Your task to perform on an android device: Search for seafood restaurants on Google Maps Image 0: 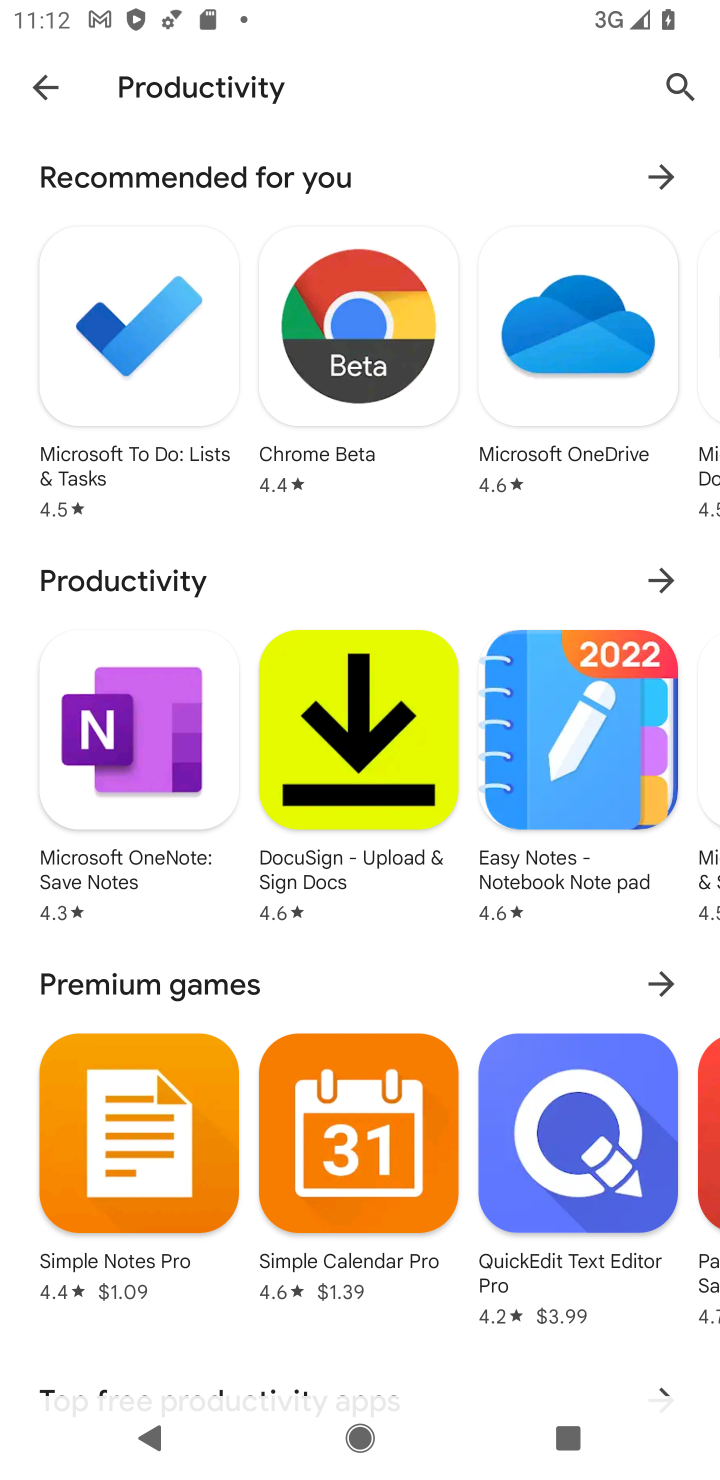
Step 0: press home button
Your task to perform on an android device: Search for seafood restaurants on Google Maps Image 1: 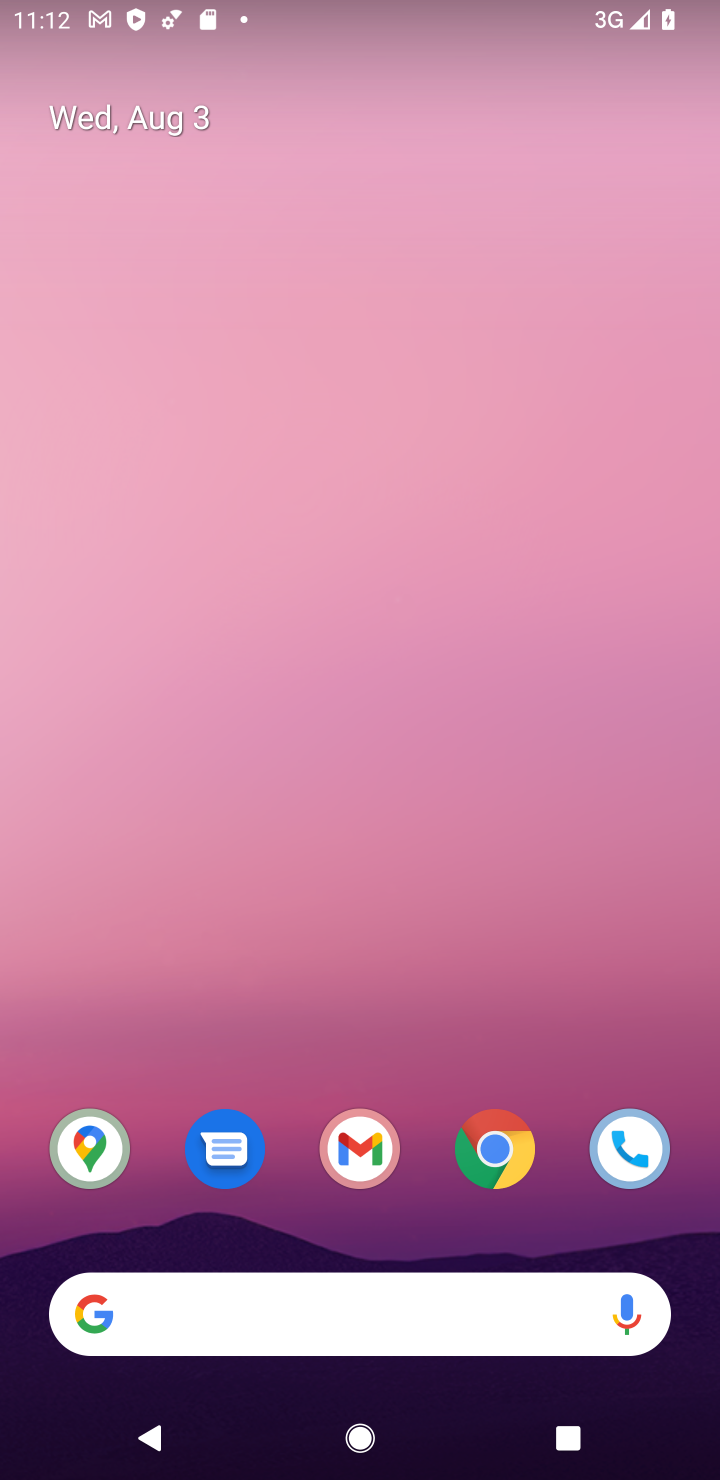
Step 1: drag from (501, 1025) to (489, 59)
Your task to perform on an android device: Search for seafood restaurants on Google Maps Image 2: 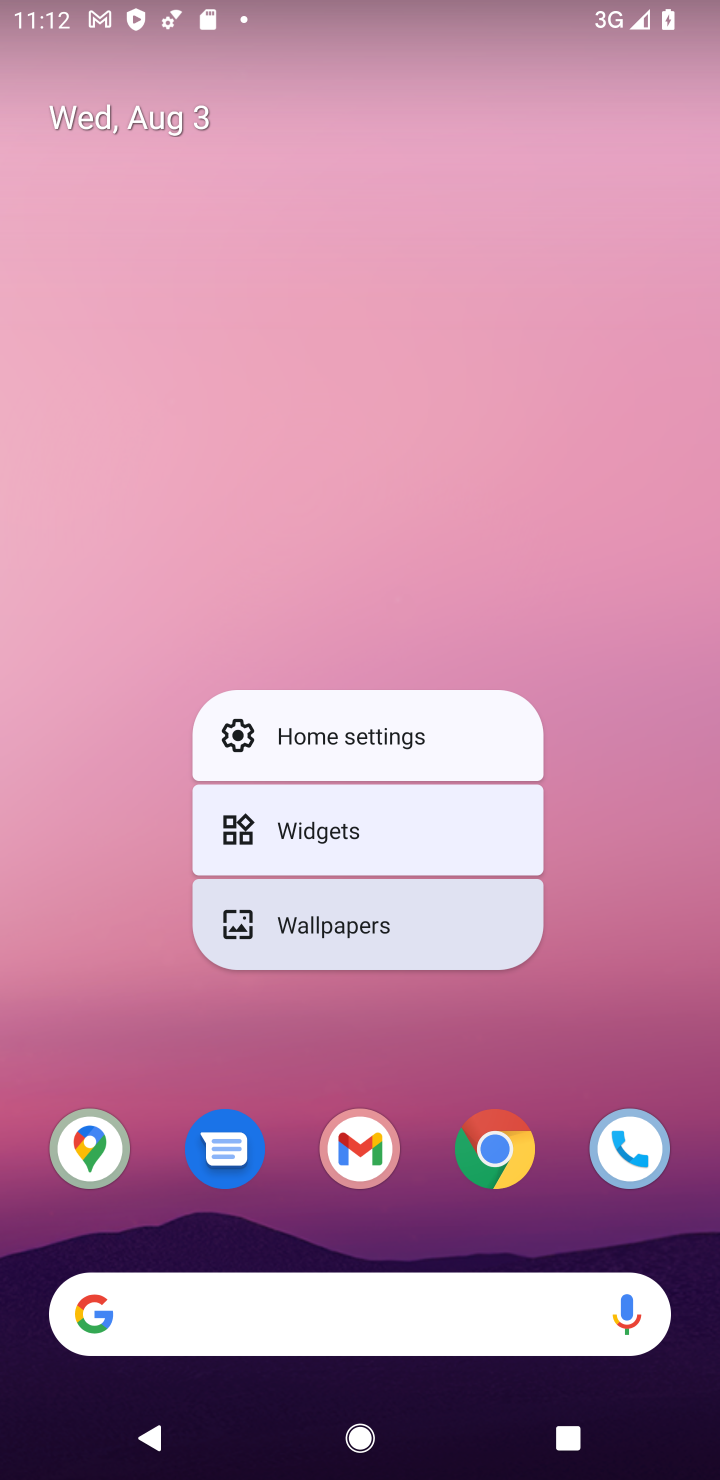
Step 2: click (90, 1161)
Your task to perform on an android device: Search for seafood restaurants on Google Maps Image 3: 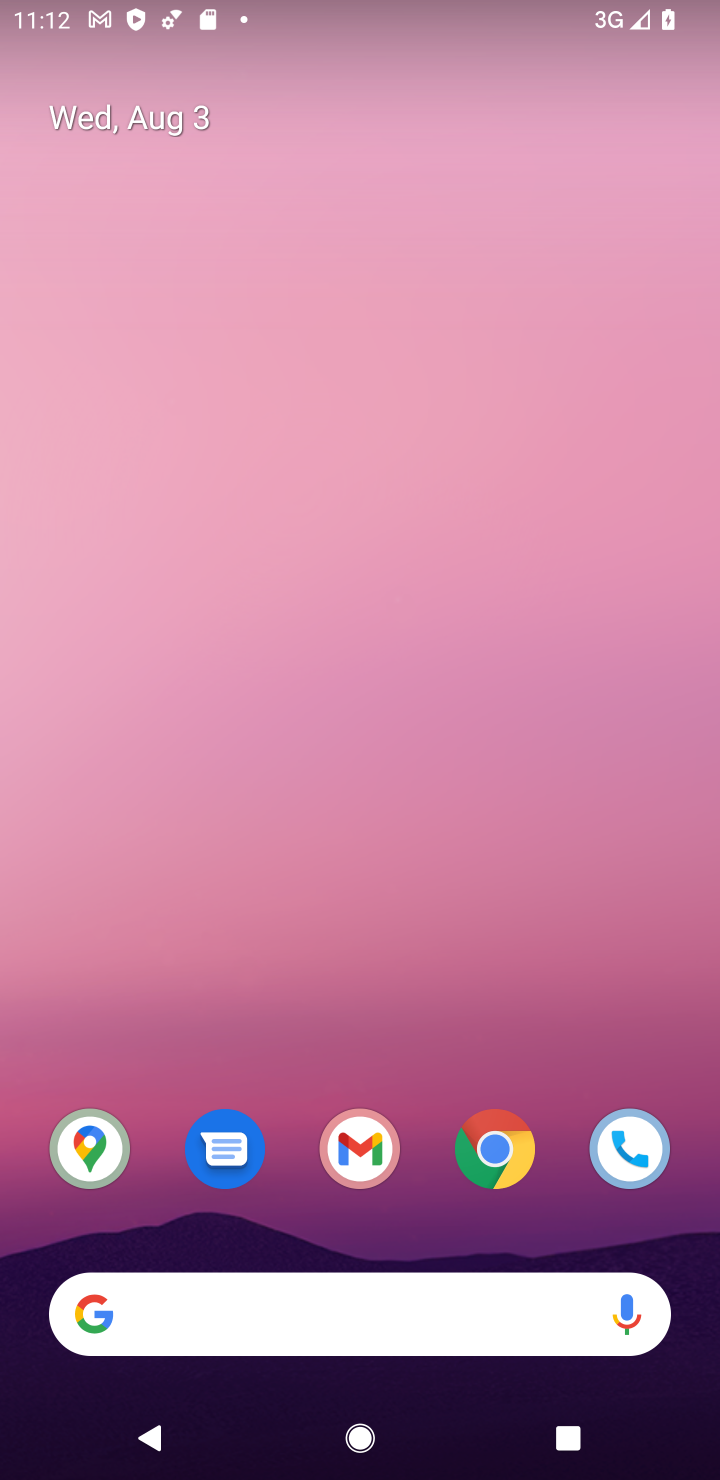
Step 3: click (89, 1150)
Your task to perform on an android device: Search for seafood restaurants on Google Maps Image 4: 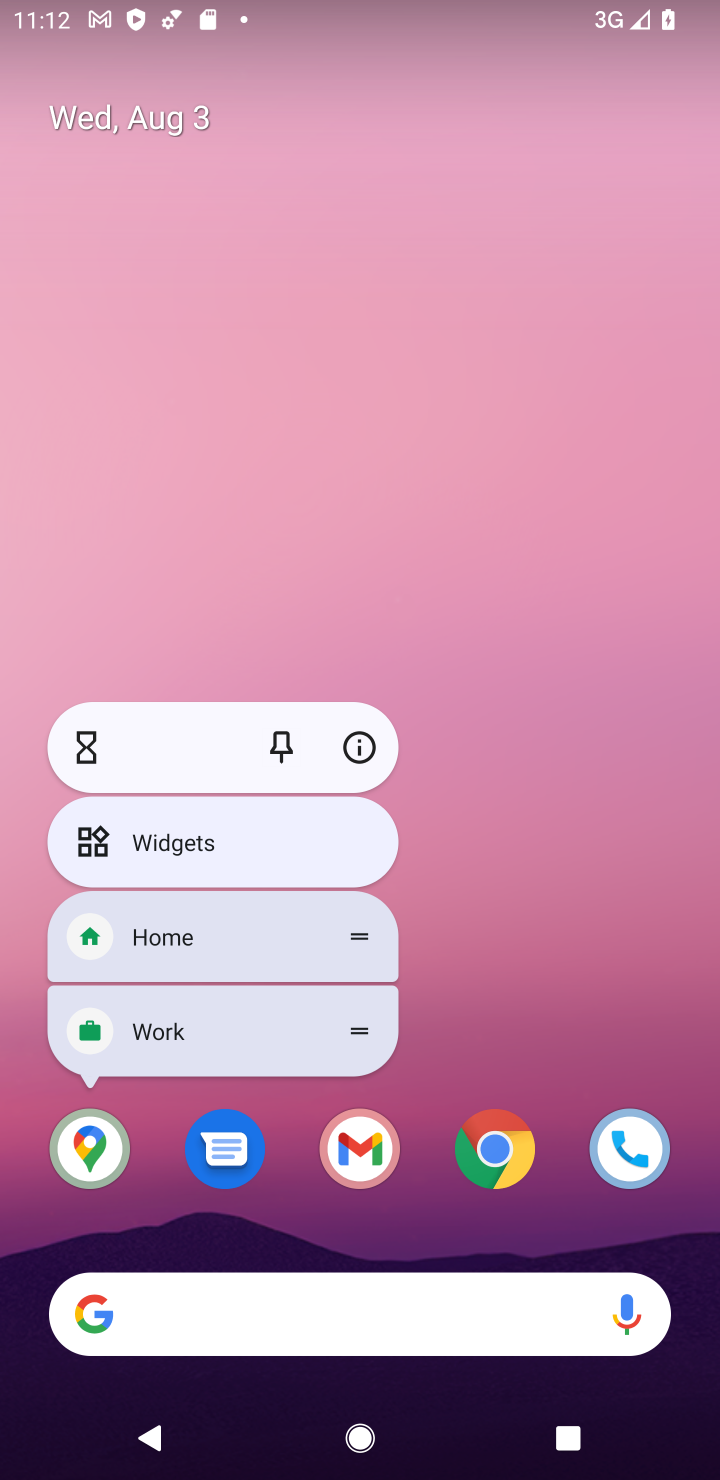
Step 4: click (89, 1146)
Your task to perform on an android device: Search for seafood restaurants on Google Maps Image 5: 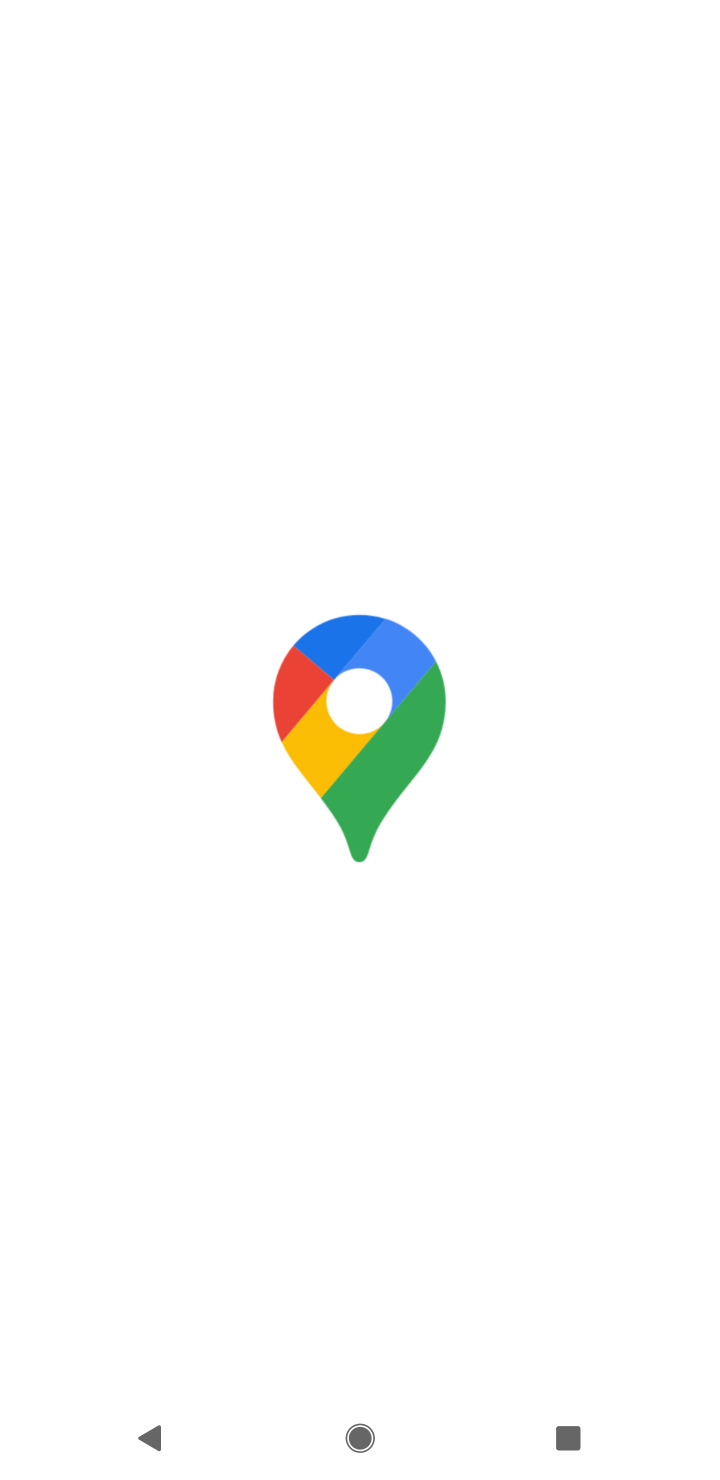
Step 5: task complete